Your task to perform on an android device: Open Google Chrome Image 0: 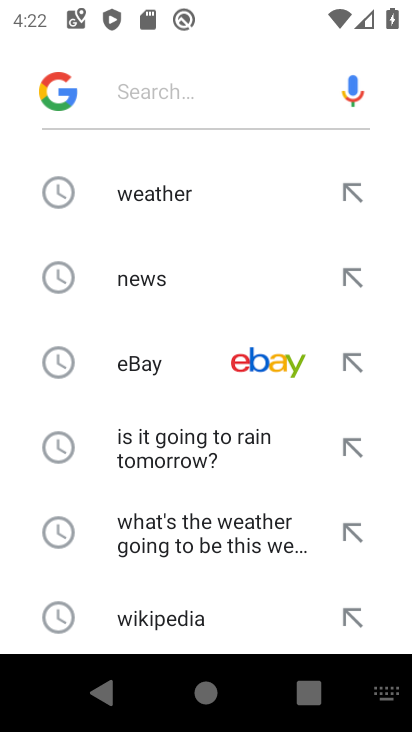
Step 0: press home button
Your task to perform on an android device: Open Google Chrome Image 1: 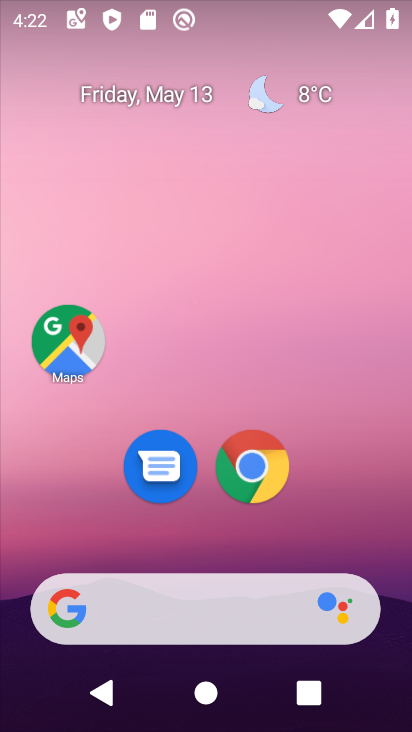
Step 1: click (252, 470)
Your task to perform on an android device: Open Google Chrome Image 2: 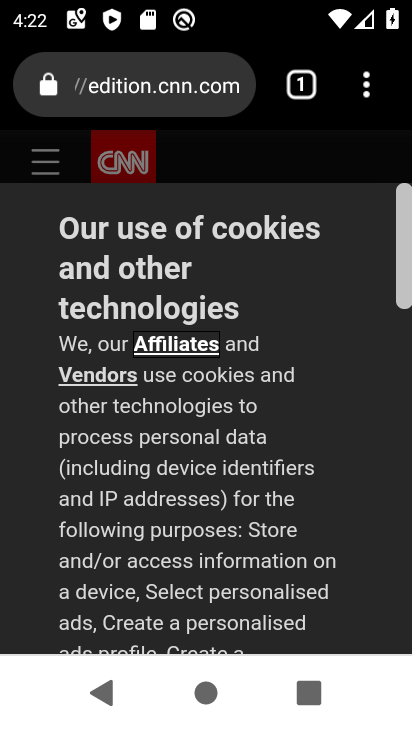
Step 2: task complete